Your task to perform on an android device: Search for panasonic triple a on walmart, select the first entry, add it to the cart, then select checkout. Image 0: 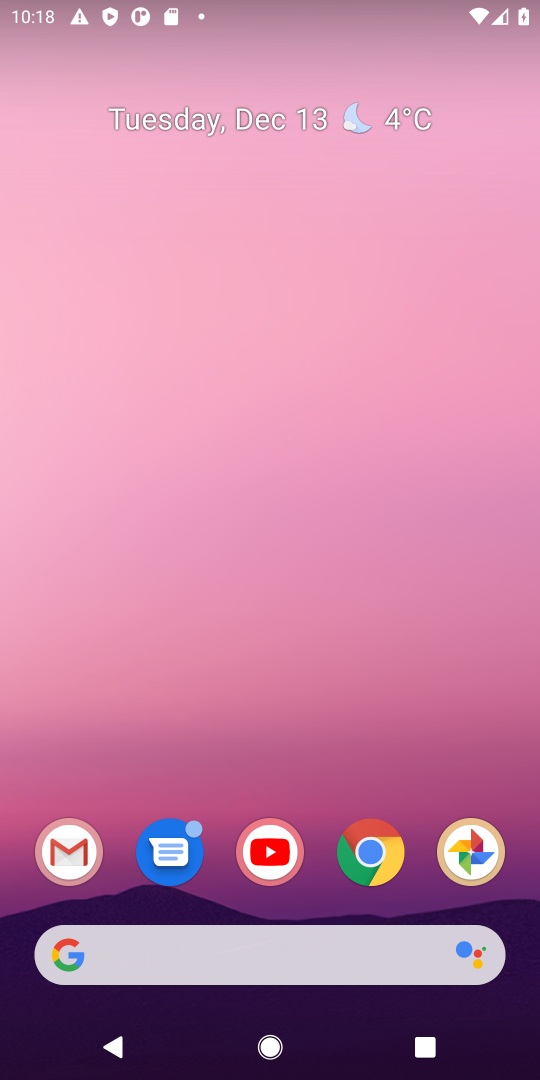
Step 0: press home button
Your task to perform on an android device: Search for panasonic triple a on walmart, select the first entry, add it to the cart, then select checkout. Image 1: 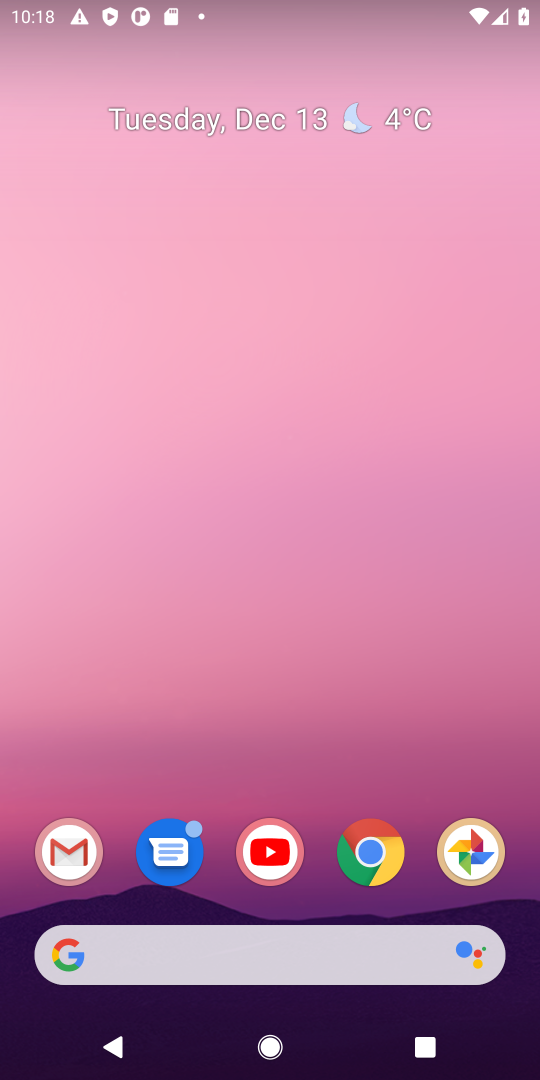
Step 1: click (126, 959)
Your task to perform on an android device: Search for panasonic triple a on walmart, select the first entry, add it to the cart, then select checkout. Image 2: 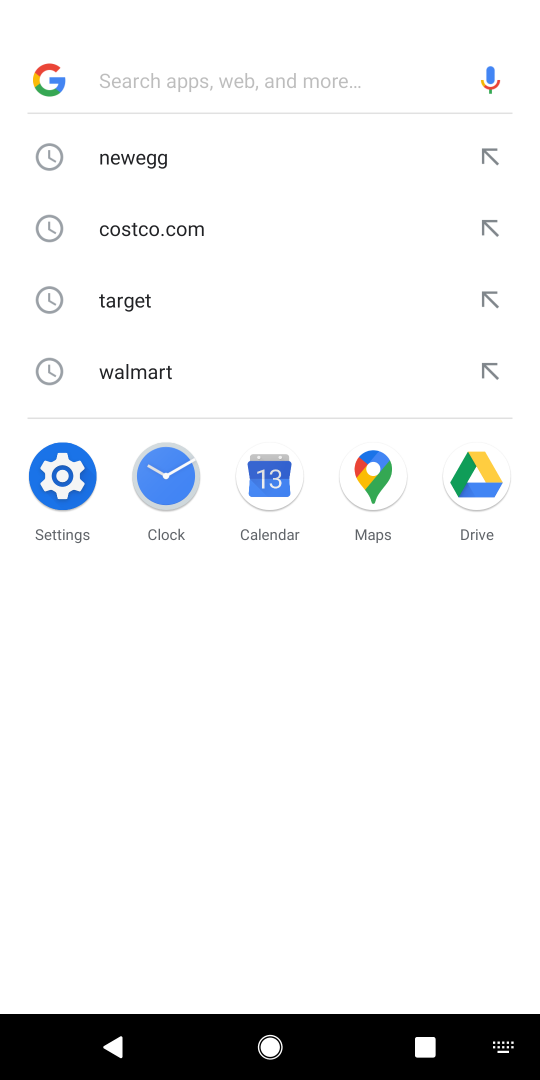
Step 2: type "walmart"
Your task to perform on an android device: Search for panasonic triple a on walmart, select the first entry, add it to the cart, then select checkout. Image 3: 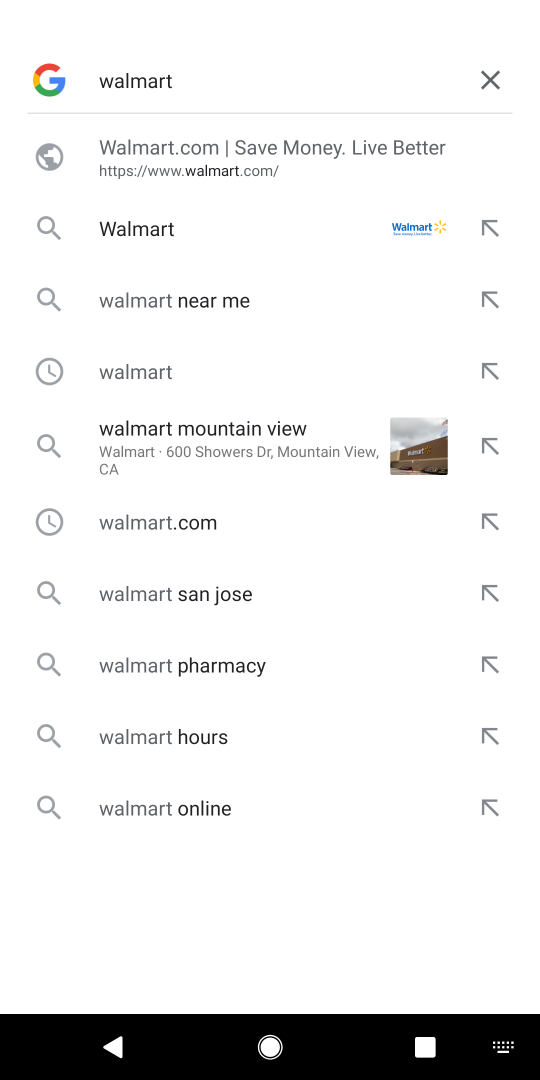
Step 3: press enter
Your task to perform on an android device: Search for panasonic triple a on walmart, select the first entry, add it to the cart, then select checkout. Image 4: 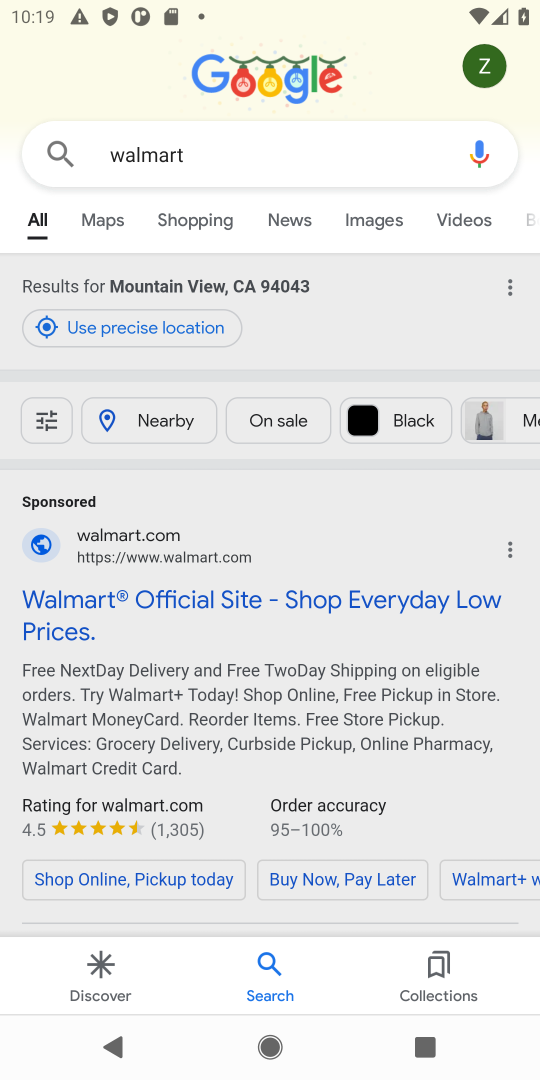
Step 4: click (188, 604)
Your task to perform on an android device: Search for panasonic triple a on walmart, select the first entry, add it to the cart, then select checkout. Image 5: 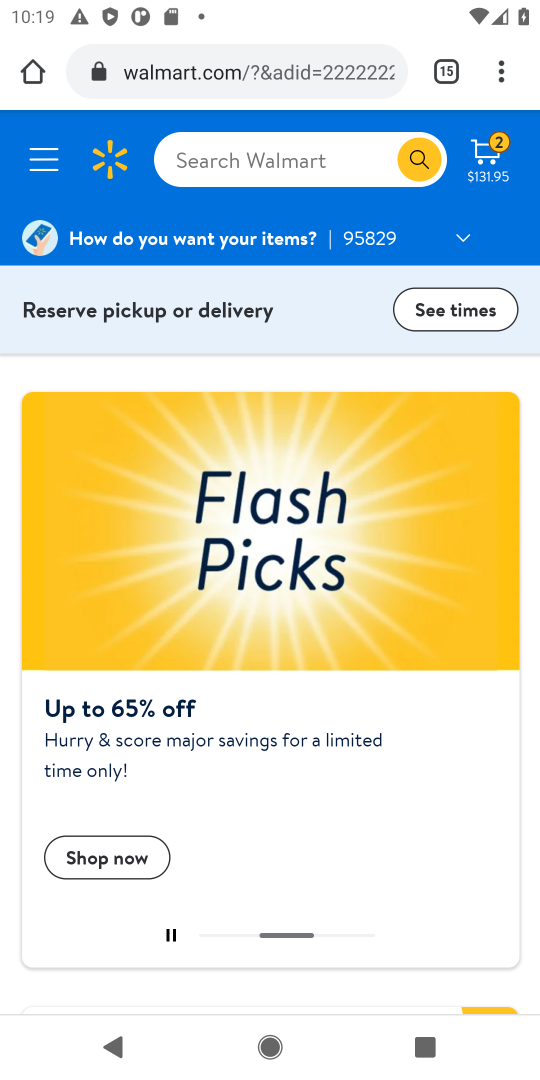
Step 5: click (200, 160)
Your task to perform on an android device: Search for panasonic triple a on walmart, select the first entry, add it to the cart, then select checkout. Image 6: 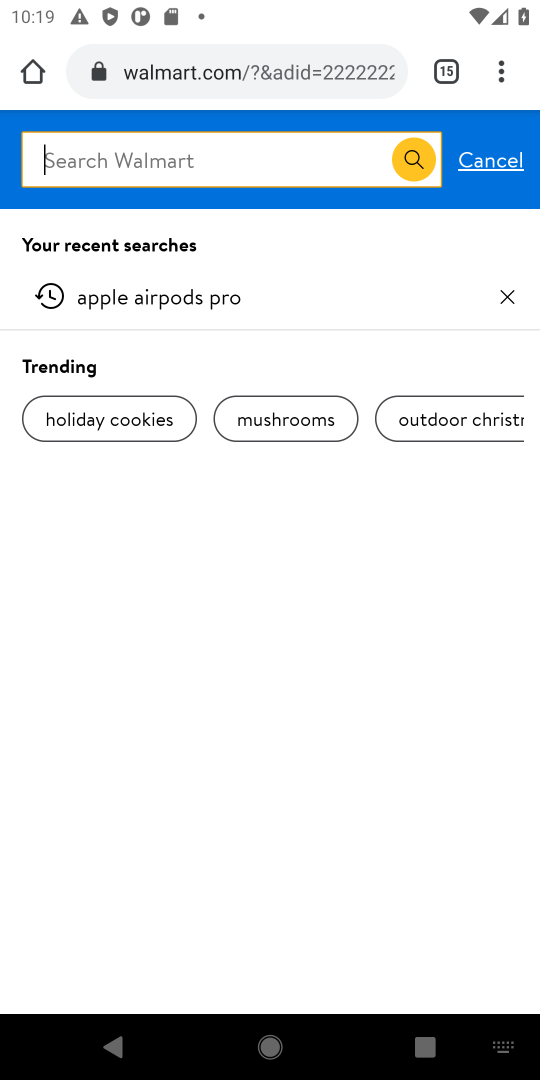
Step 6: type " panasonic triple a "
Your task to perform on an android device: Search for panasonic triple a on walmart, select the first entry, add it to the cart, then select checkout. Image 7: 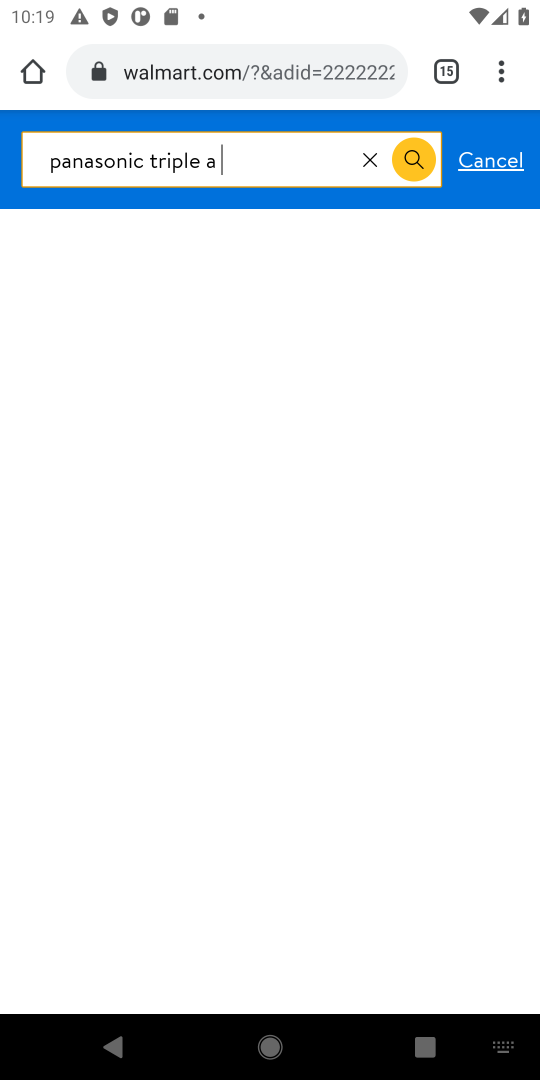
Step 7: press enter
Your task to perform on an android device: Search for panasonic triple a on walmart, select the first entry, add it to the cart, then select checkout. Image 8: 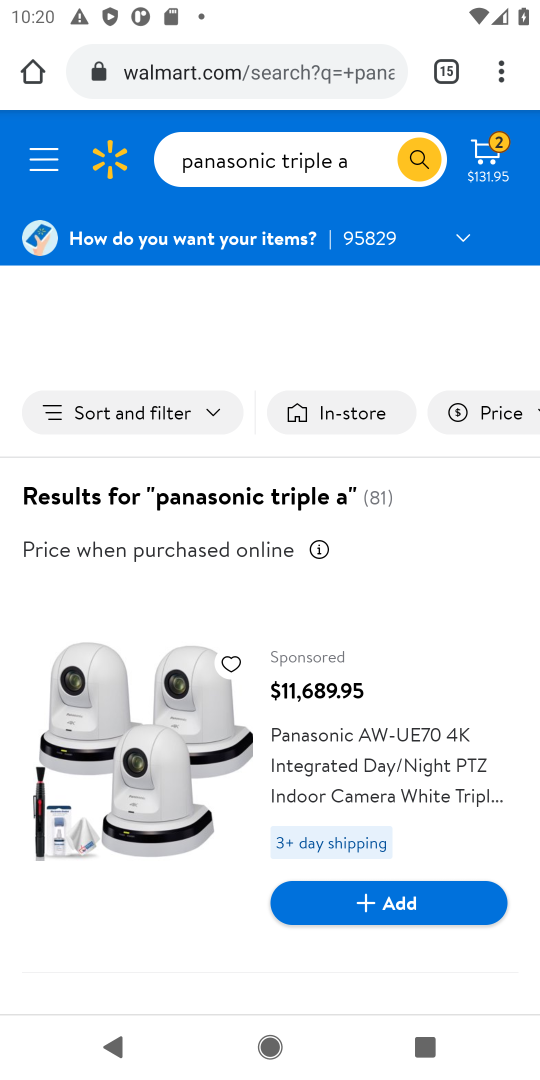
Step 8: click (396, 900)
Your task to perform on an android device: Search for panasonic triple a on walmart, select the first entry, add it to the cart, then select checkout. Image 9: 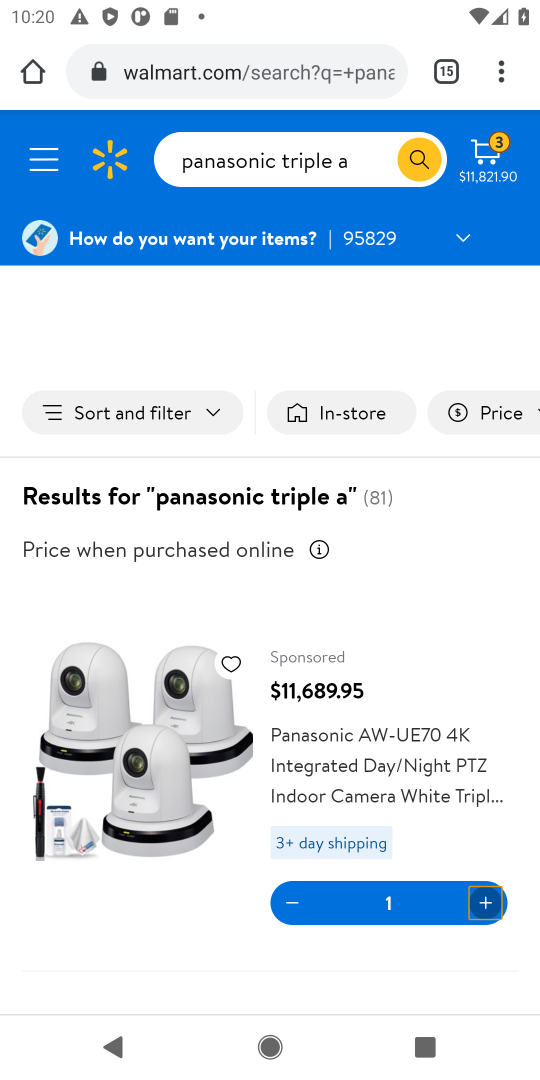
Step 9: click (487, 151)
Your task to perform on an android device: Search for panasonic triple a on walmart, select the first entry, add it to the cart, then select checkout. Image 10: 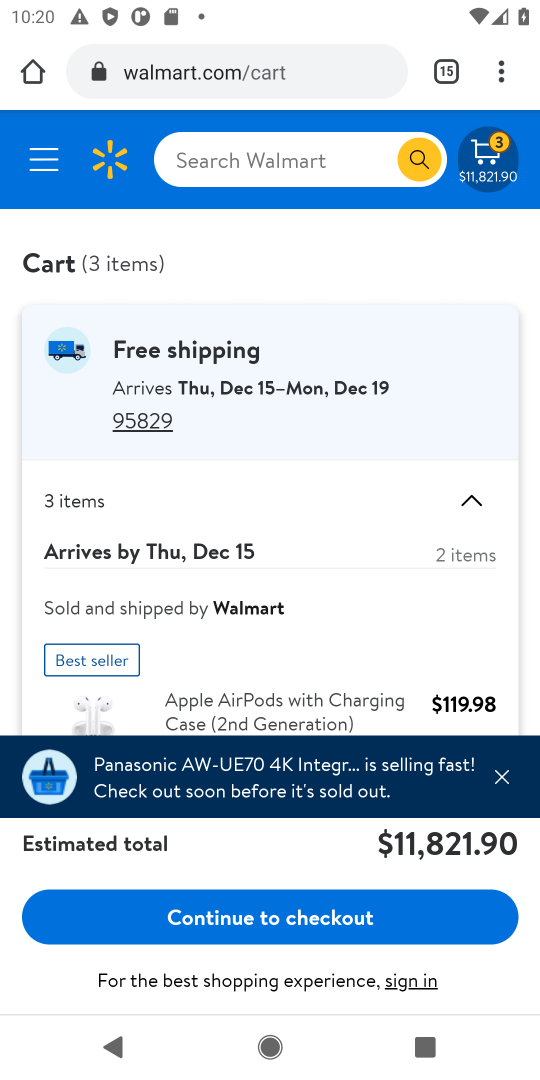
Step 10: click (224, 916)
Your task to perform on an android device: Search for panasonic triple a on walmart, select the first entry, add it to the cart, then select checkout. Image 11: 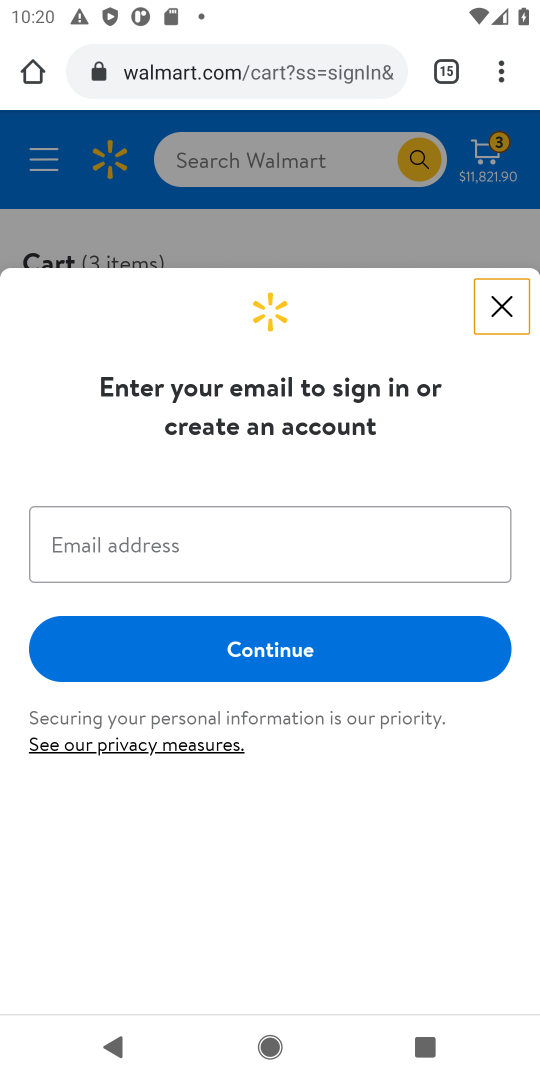
Step 11: task complete